Your task to perform on an android device: show emergency info Image 0: 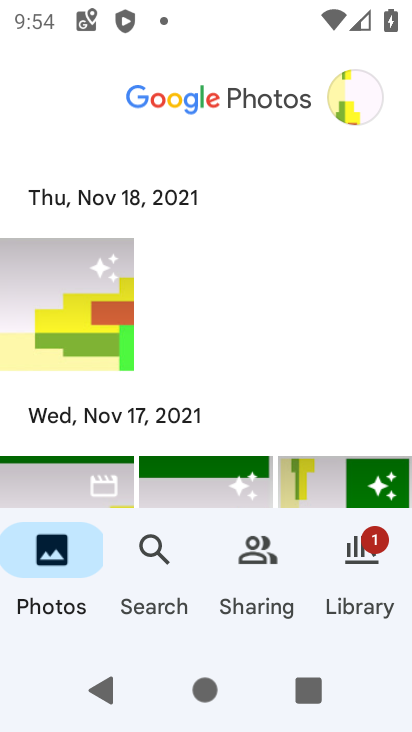
Step 0: press home button
Your task to perform on an android device: show emergency info Image 1: 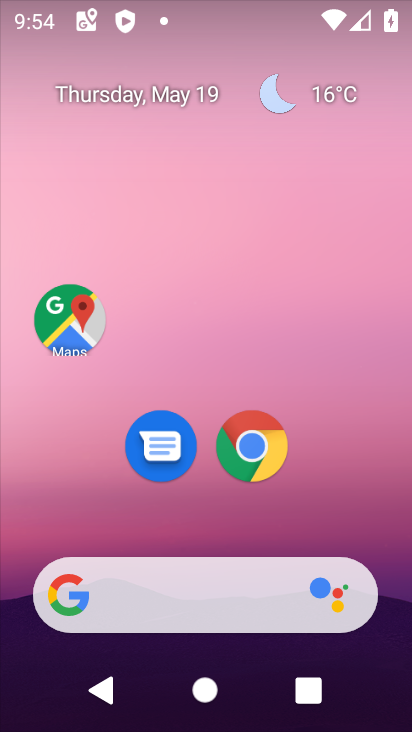
Step 1: drag from (198, 497) to (269, 9)
Your task to perform on an android device: show emergency info Image 2: 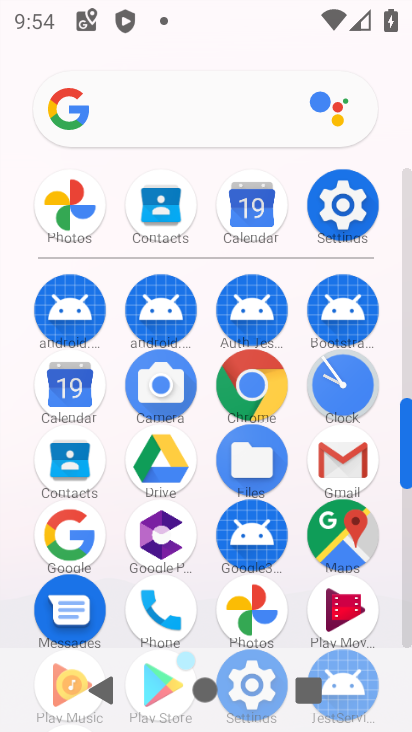
Step 2: click (340, 206)
Your task to perform on an android device: show emergency info Image 3: 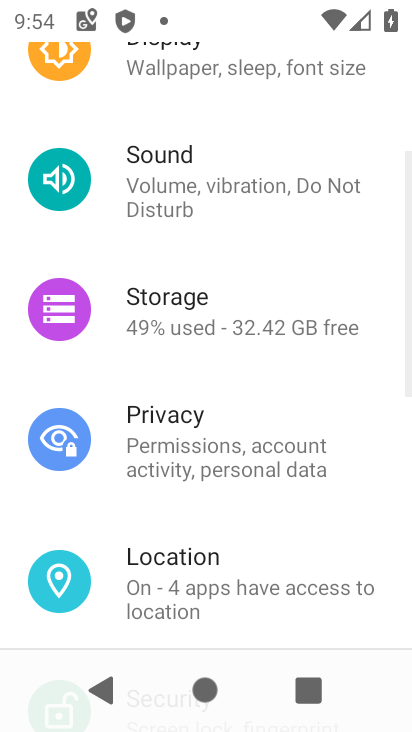
Step 3: drag from (293, 234) to (275, 392)
Your task to perform on an android device: show emergency info Image 4: 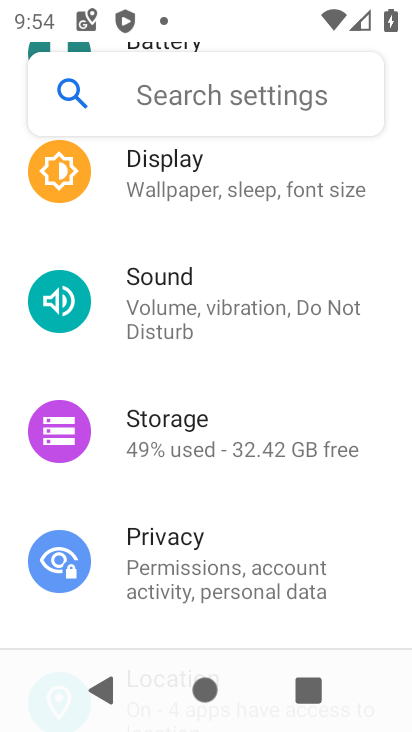
Step 4: drag from (215, 502) to (310, 0)
Your task to perform on an android device: show emergency info Image 5: 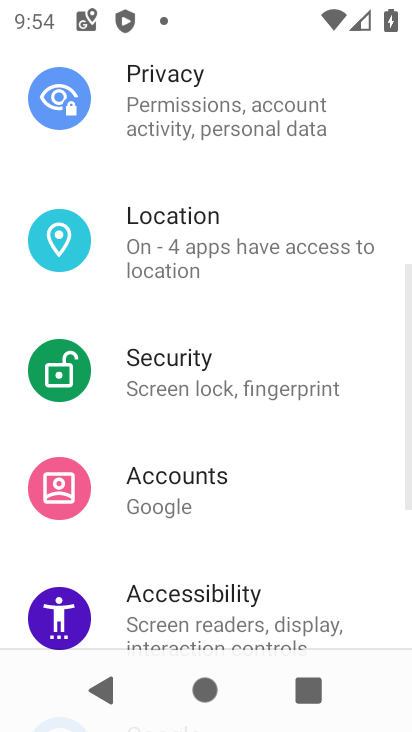
Step 5: drag from (244, 536) to (278, 29)
Your task to perform on an android device: show emergency info Image 6: 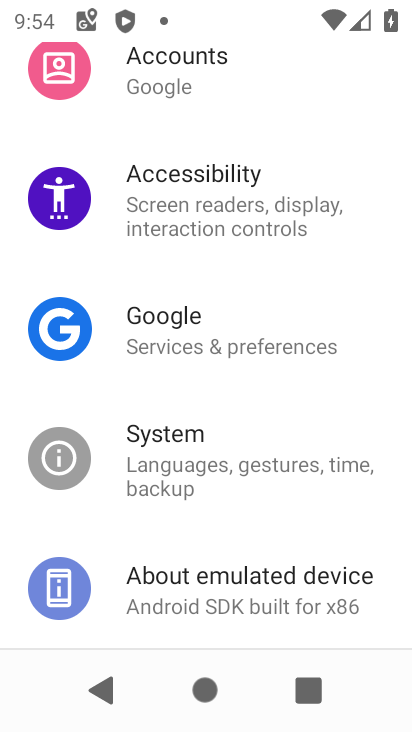
Step 6: drag from (205, 548) to (221, 312)
Your task to perform on an android device: show emergency info Image 7: 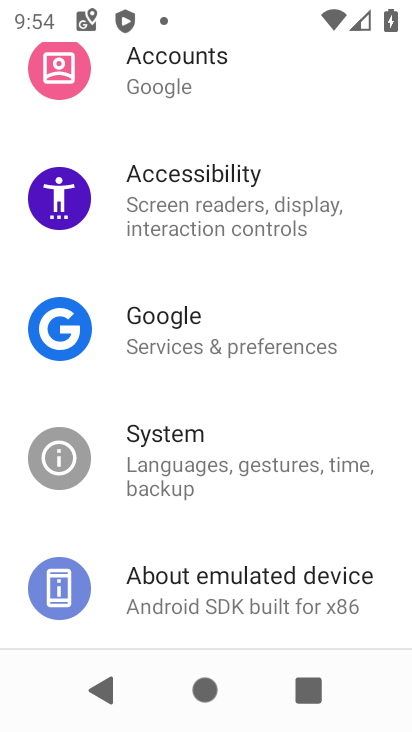
Step 7: click (216, 583)
Your task to perform on an android device: show emergency info Image 8: 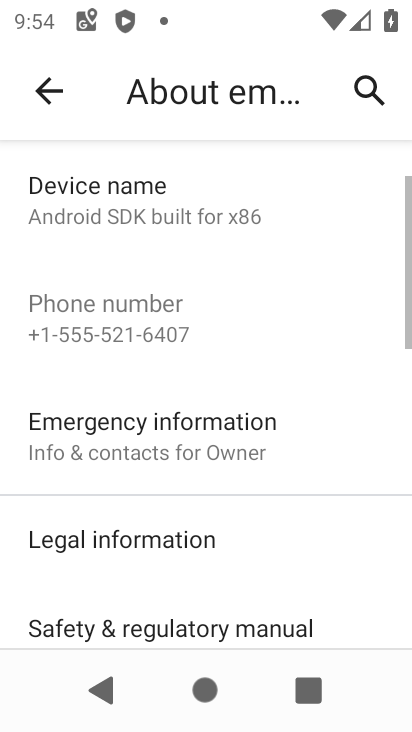
Step 8: click (166, 463)
Your task to perform on an android device: show emergency info Image 9: 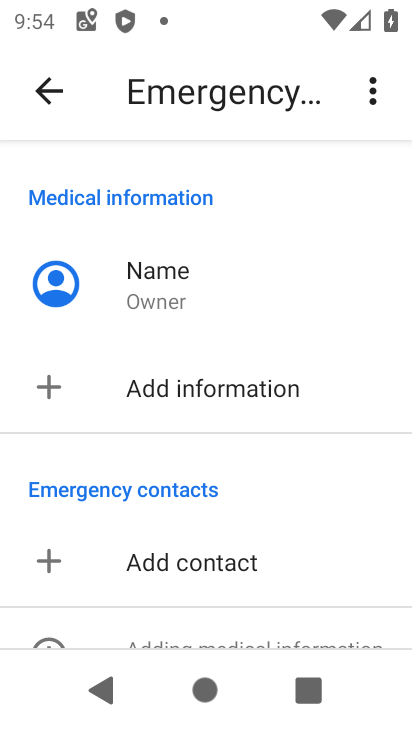
Step 9: task complete